Your task to perform on an android device: change your default location settings in chrome Image 0: 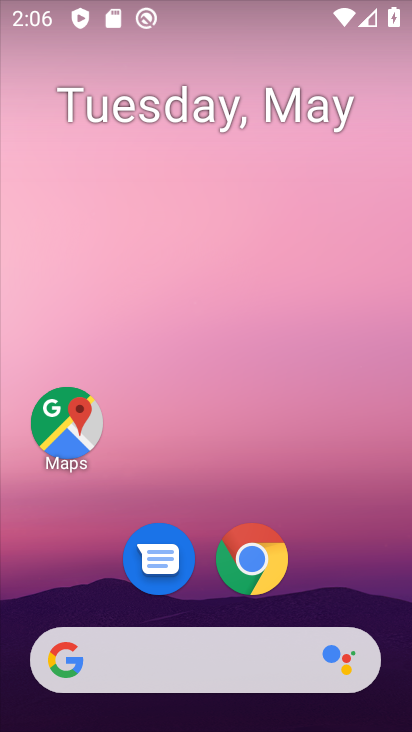
Step 0: click (250, 560)
Your task to perform on an android device: change your default location settings in chrome Image 1: 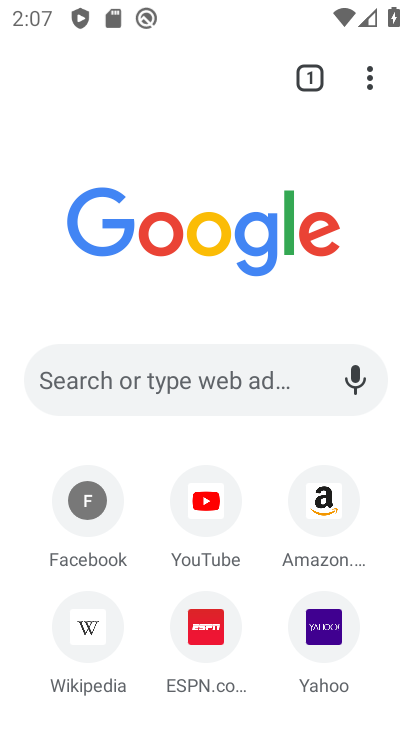
Step 1: click (372, 78)
Your task to perform on an android device: change your default location settings in chrome Image 2: 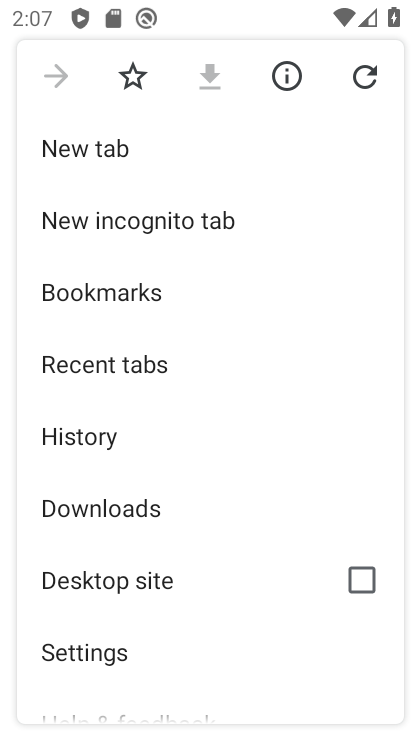
Step 2: click (94, 652)
Your task to perform on an android device: change your default location settings in chrome Image 3: 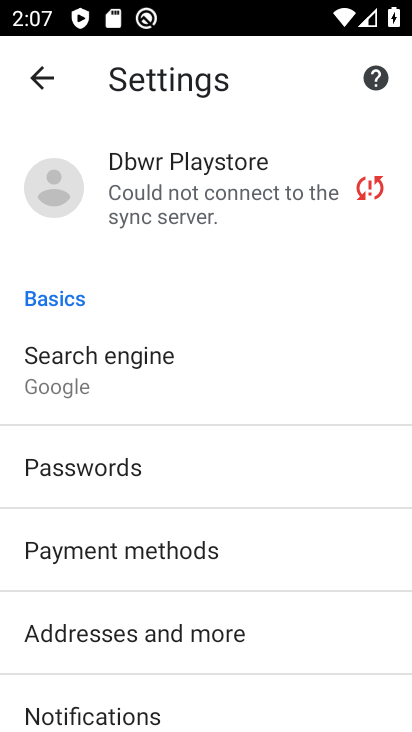
Step 3: drag from (206, 614) to (231, 561)
Your task to perform on an android device: change your default location settings in chrome Image 4: 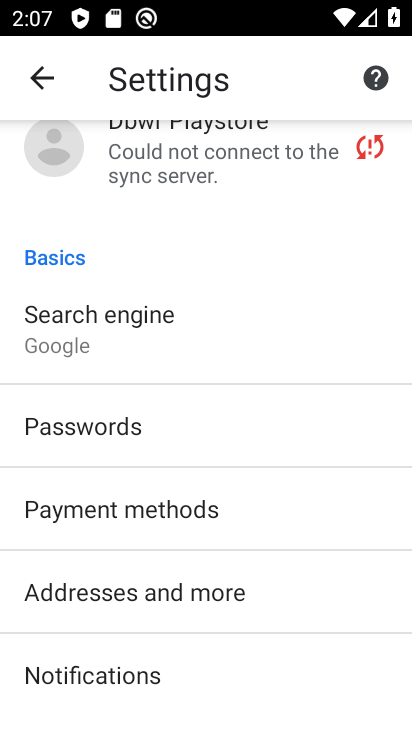
Step 4: drag from (188, 661) to (213, 546)
Your task to perform on an android device: change your default location settings in chrome Image 5: 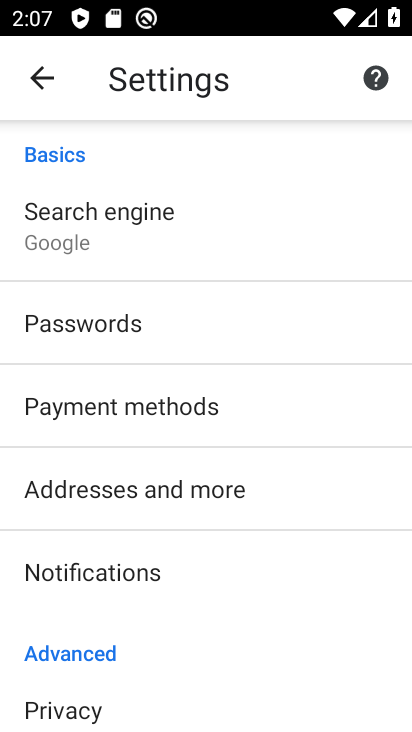
Step 5: drag from (178, 615) to (237, 513)
Your task to perform on an android device: change your default location settings in chrome Image 6: 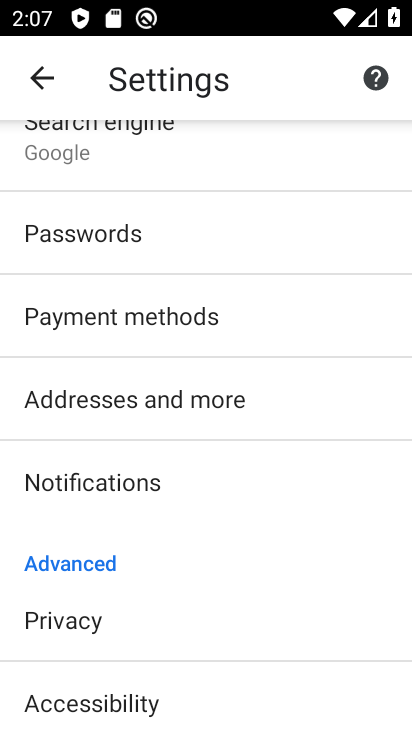
Step 6: drag from (158, 576) to (178, 472)
Your task to perform on an android device: change your default location settings in chrome Image 7: 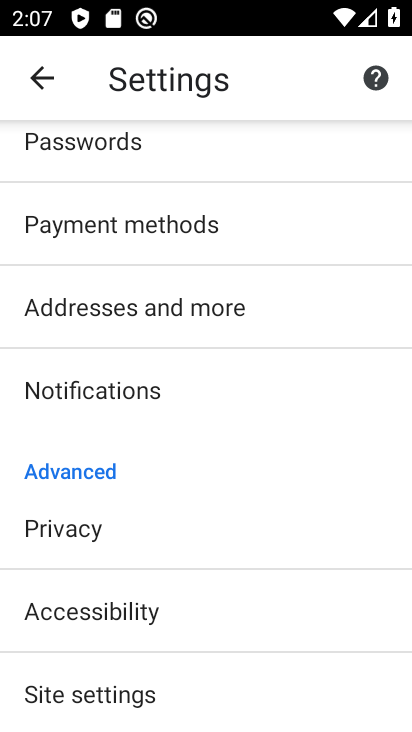
Step 7: drag from (192, 614) to (234, 512)
Your task to perform on an android device: change your default location settings in chrome Image 8: 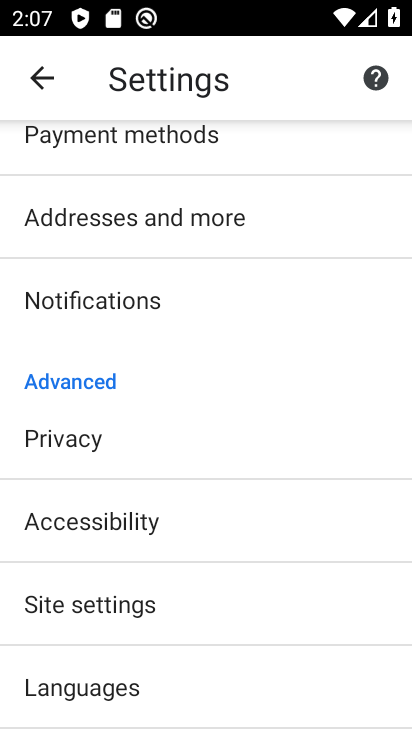
Step 8: click (130, 602)
Your task to perform on an android device: change your default location settings in chrome Image 9: 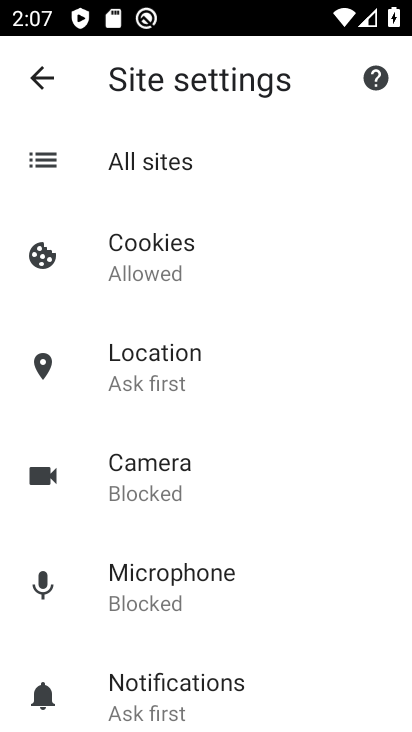
Step 9: click (185, 363)
Your task to perform on an android device: change your default location settings in chrome Image 10: 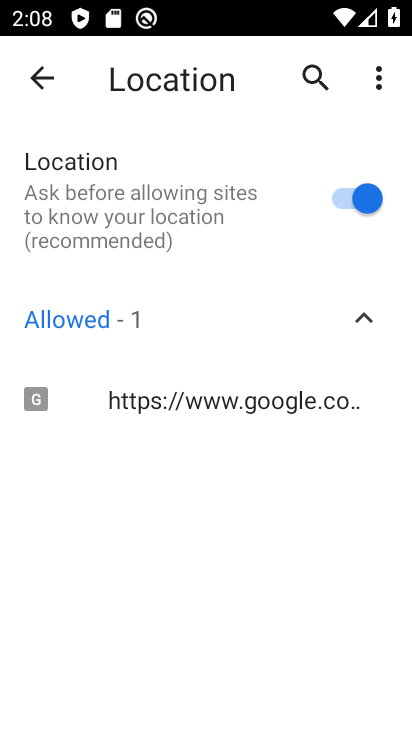
Step 10: click (367, 197)
Your task to perform on an android device: change your default location settings in chrome Image 11: 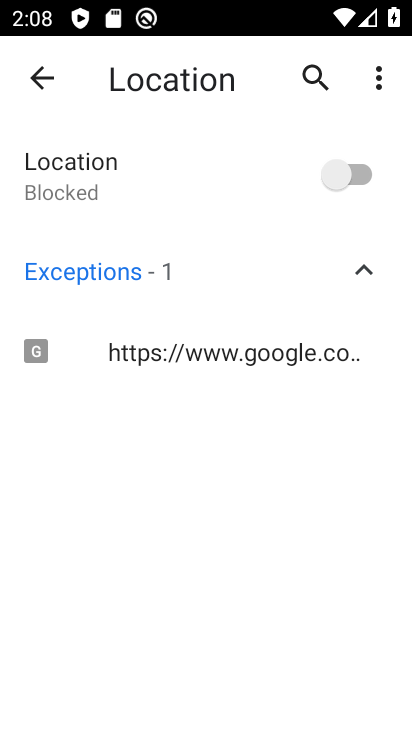
Step 11: task complete